Your task to perform on an android device: check storage Image 0: 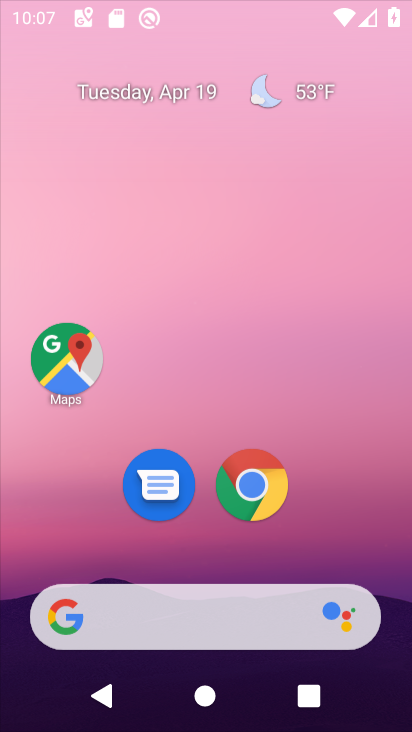
Step 0: click (368, 14)
Your task to perform on an android device: check storage Image 1: 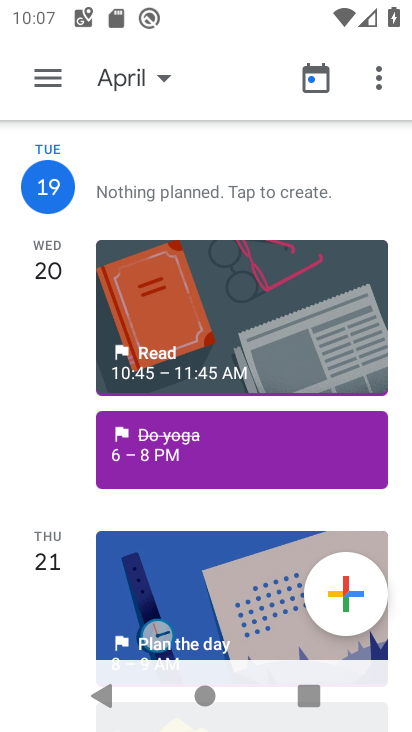
Step 1: press back button
Your task to perform on an android device: check storage Image 2: 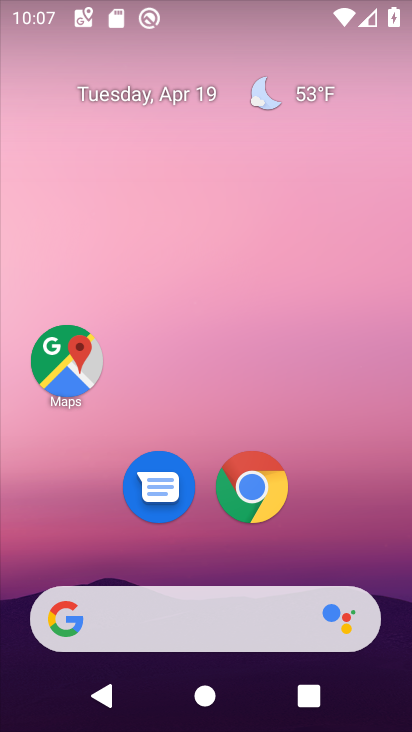
Step 2: drag from (394, 643) to (318, 52)
Your task to perform on an android device: check storage Image 3: 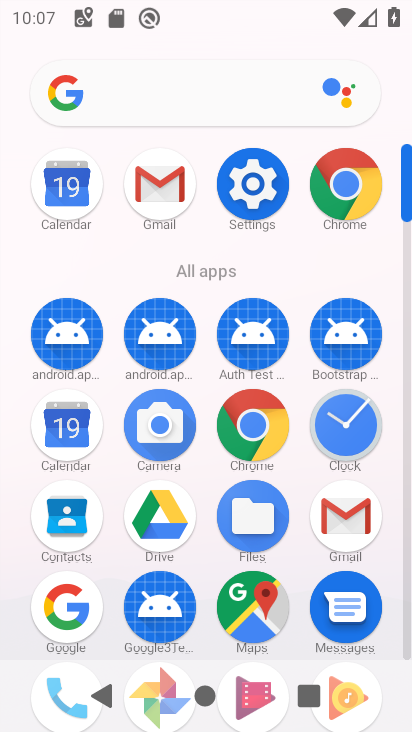
Step 3: click (251, 182)
Your task to perform on an android device: check storage Image 4: 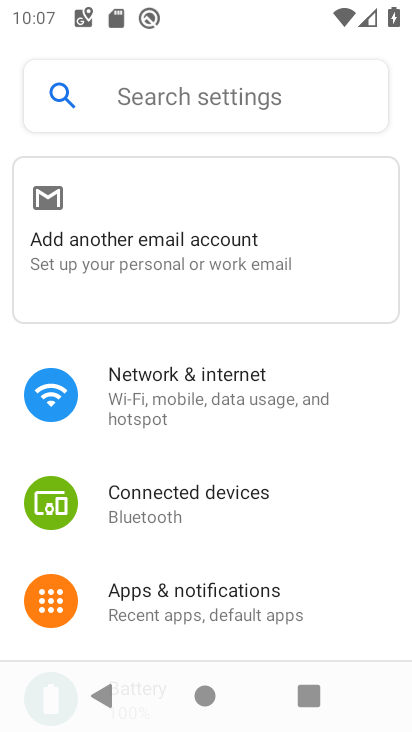
Step 4: drag from (350, 431) to (360, 109)
Your task to perform on an android device: check storage Image 5: 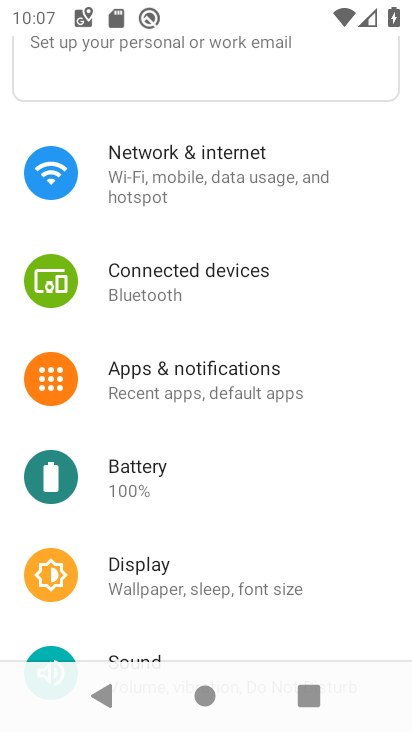
Step 5: drag from (343, 473) to (355, 98)
Your task to perform on an android device: check storage Image 6: 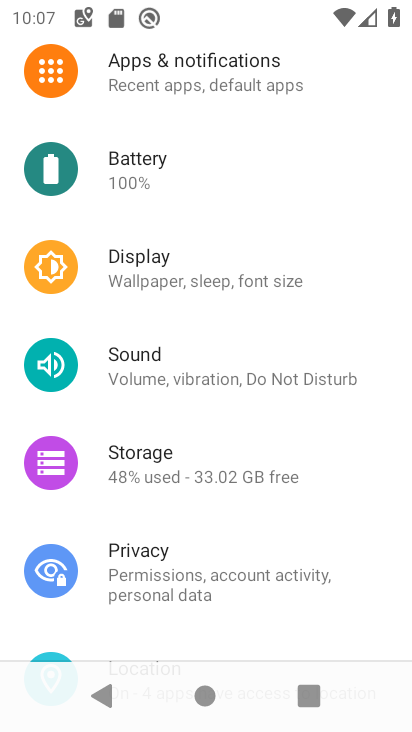
Step 6: click (178, 466)
Your task to perform on an android device: check storage Image 7: 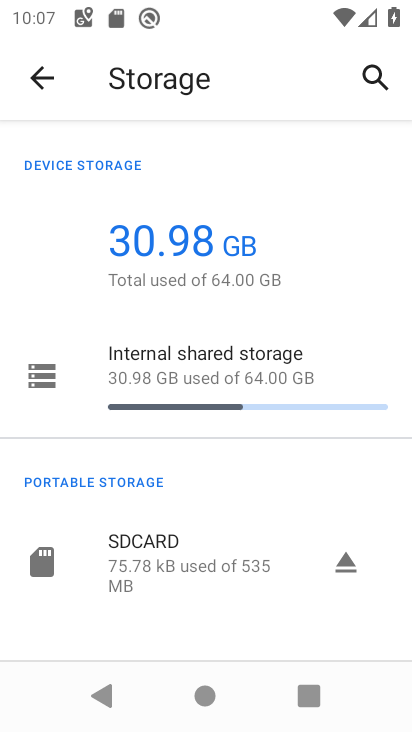
Step 7: task complete